Your task to perform on an android device: read, delete, or share a saved page in the chrome app Image 0: 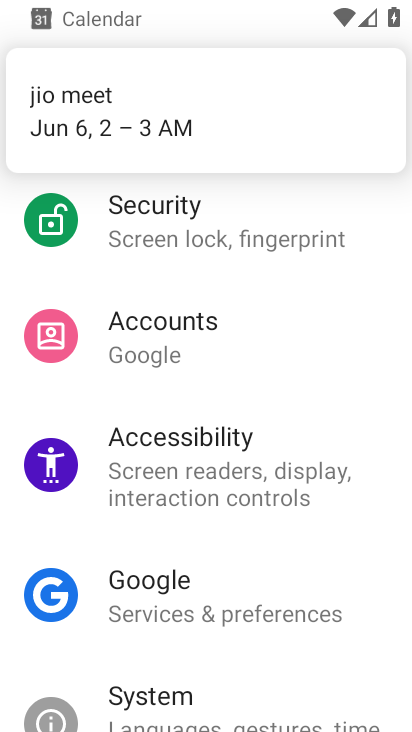
Step 0: press home button
Your task to perform on an android device: read, delete, or share a saved page in the chrome app Image 1: 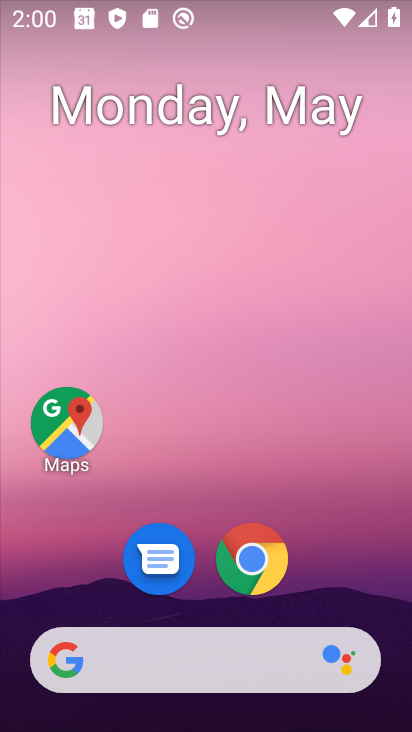
Step 1: click (259, 561)
Your task to perform on an android device: read, delete, or share a saved page in the chrome app Image 2: 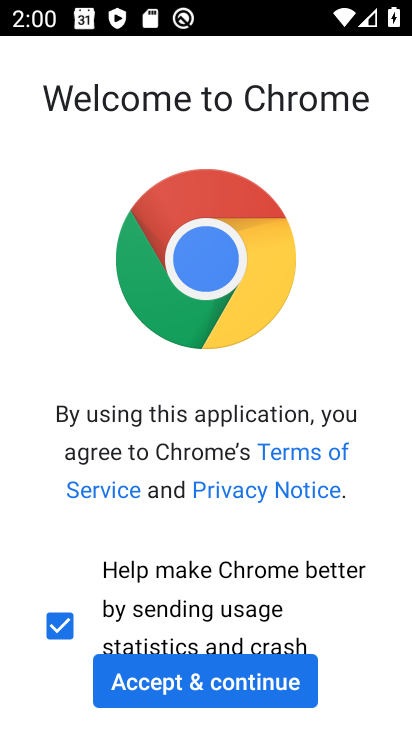
Step 2: click (183, 688)
Your task to perform on an android device: read, delete, or share a saved page in the chrome app Image 3: 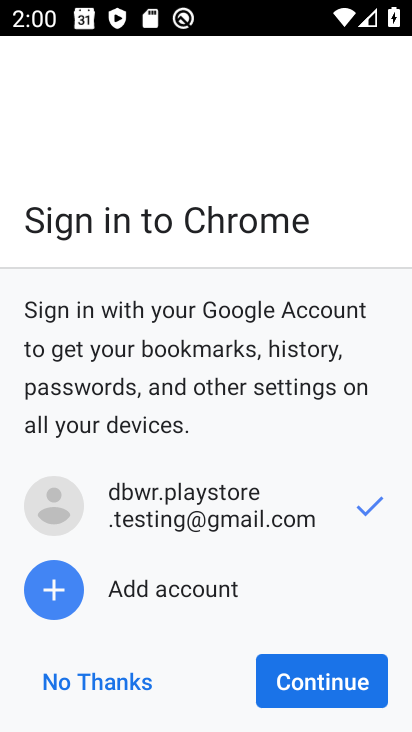
Step 3: click (86, 676)
Your task to perform on an android device: read, delete, or share a saved page in the chrome app Image 4: 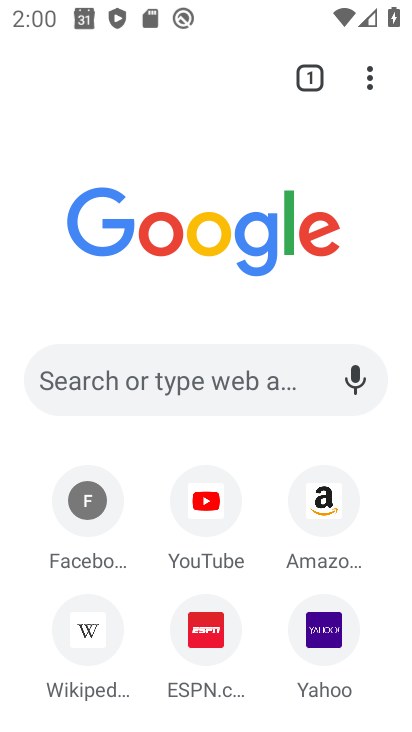
Step 4: drag from (370, 80) to (123, 506)
Your task to perform on an android device: read, delete, or share a saved page in the chrome app Image 5: 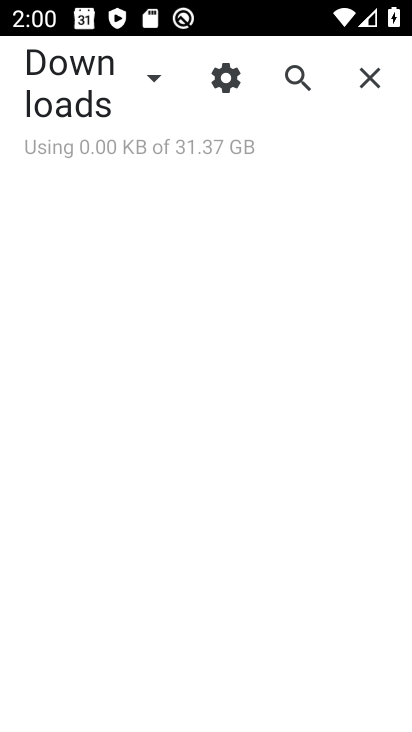
Step 5: click (157, 79)
Your task to perform on an android device: read, delete, or share a saved page in the chrome app Image 6: 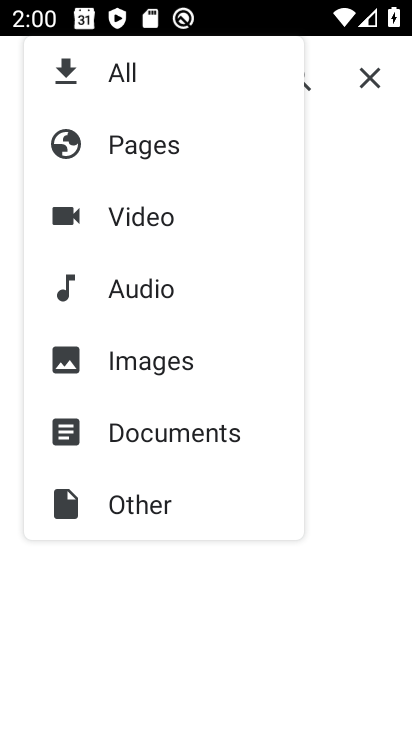
Step 6: click (117, 152)
Your task to perform on an android device: read, delete, or share a saved page in the chrome app Image 7: 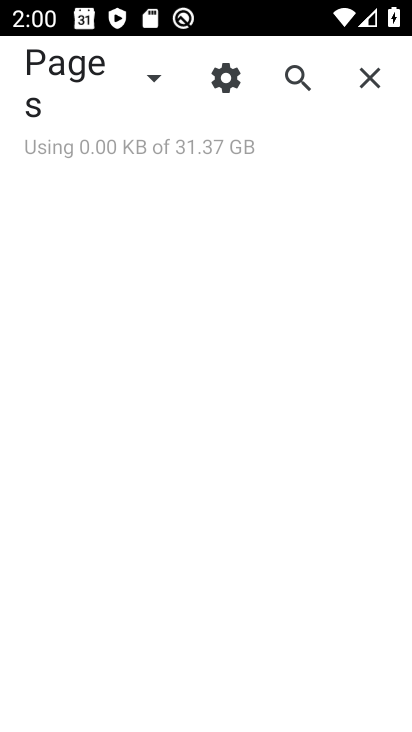
Step 7: task complete